Your task to perform on an android device: Clear all items from cart on target.com. Add "bose soundsport free" to the cart on target.com, then select checkout. Image 0: 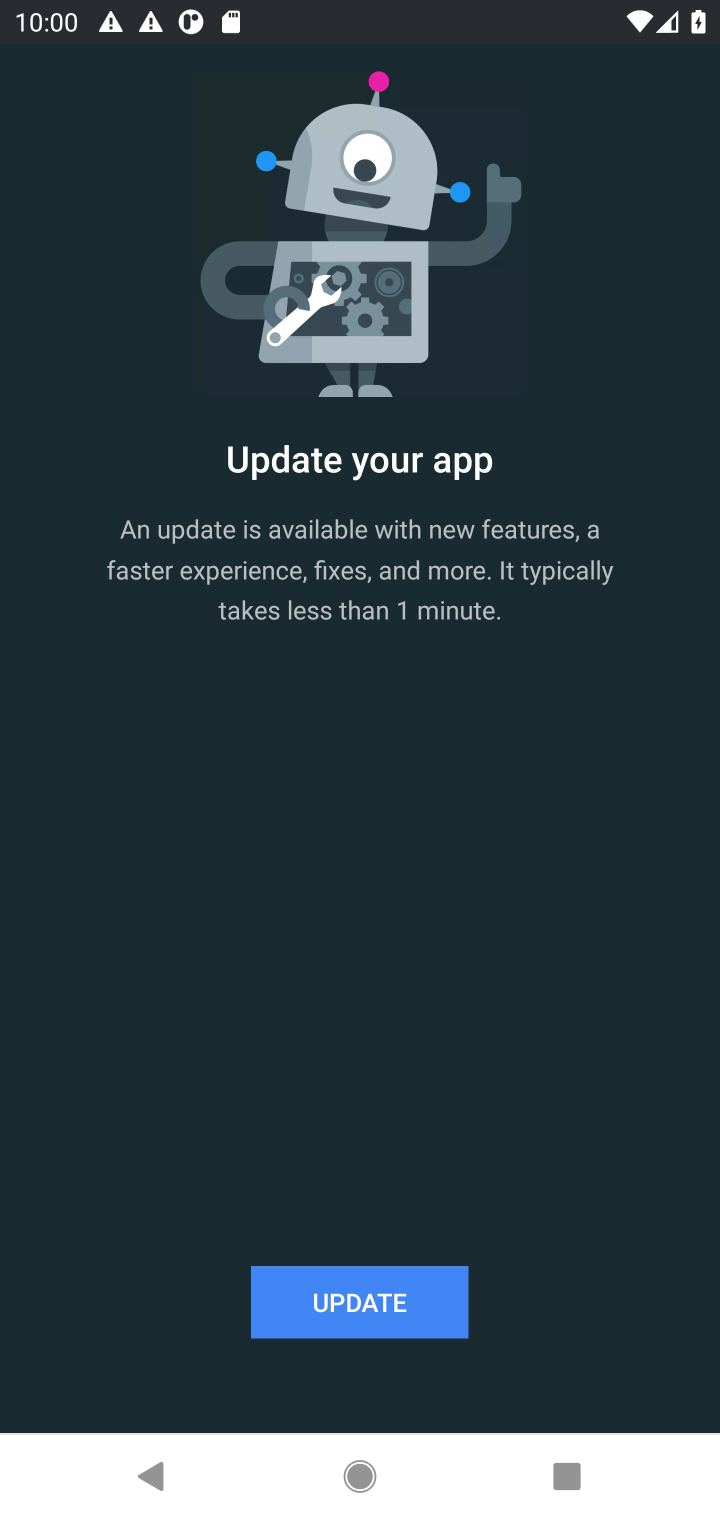
Step 0: press home button
Your task to perform on an android device: Clear all items from cart on target.com. Add "bose soundsport free" to the cart on target.com, then select checkout. Image 1: 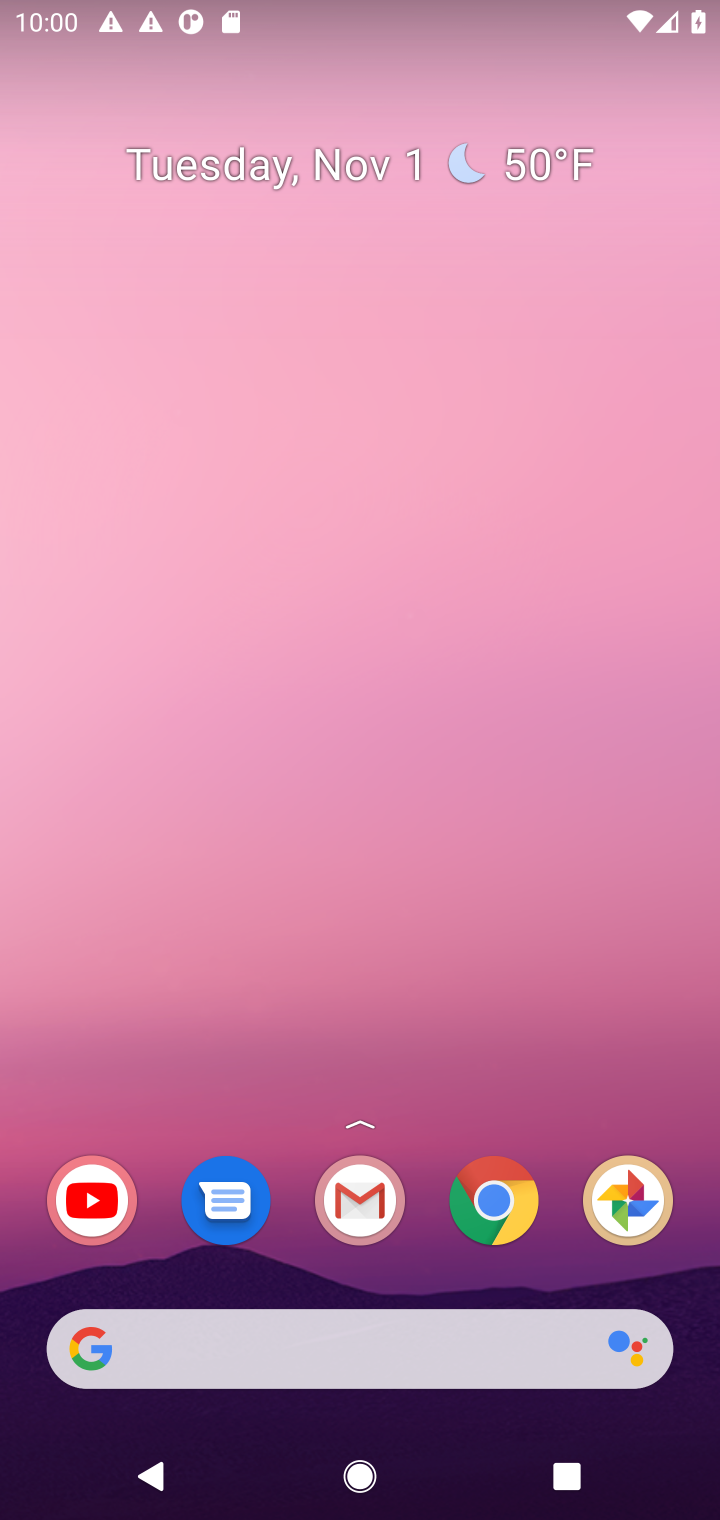
Step 1: click (202, 1345)
Your task to perform on an android device: Clear all items from cart on target.com. Add "bose soundsport free" to the cart on target.com, then select checkout. Image 2: 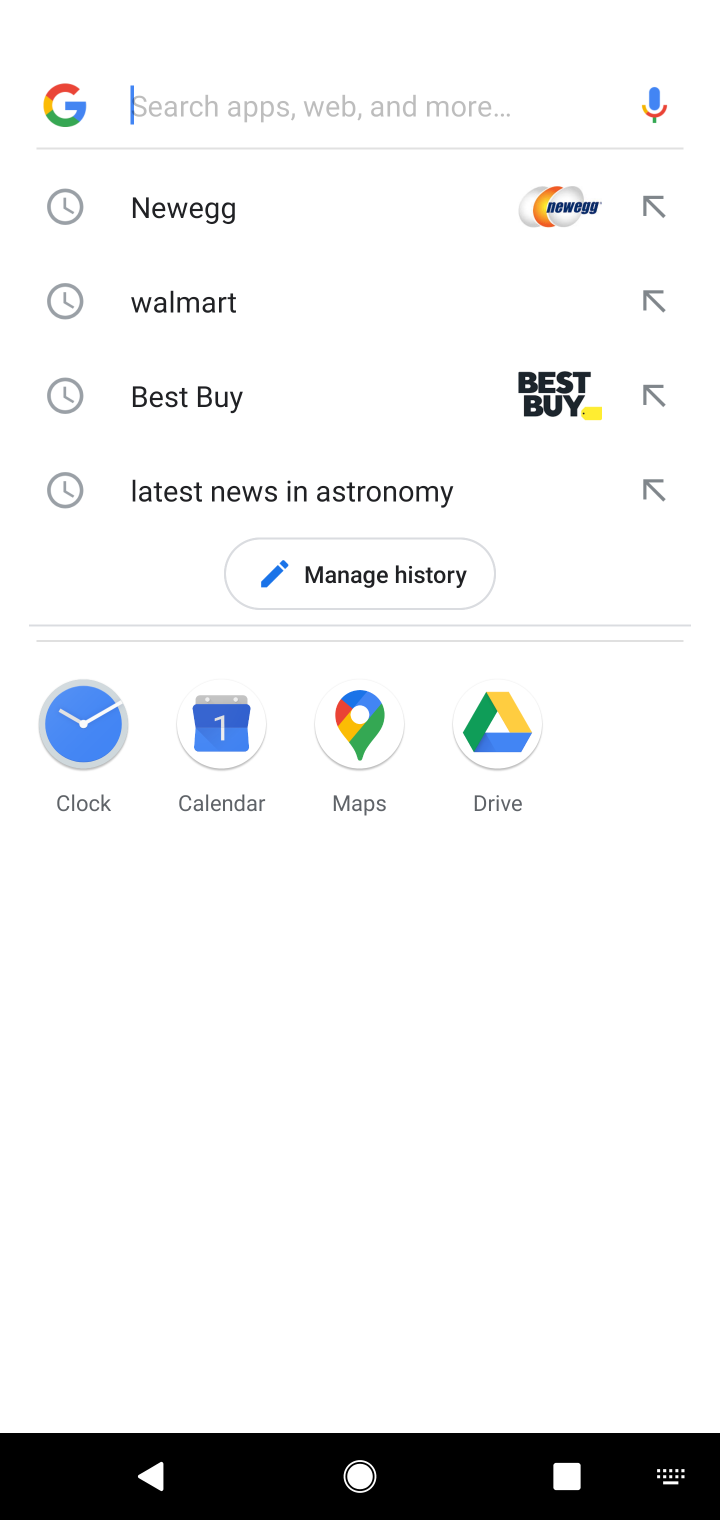
Step 2: type "target.com"
Your task to perform on an android device: Clear all items from cart on target.com. Add "bose soundsport free" to the cart on target.com, then select checkout. Image 3: 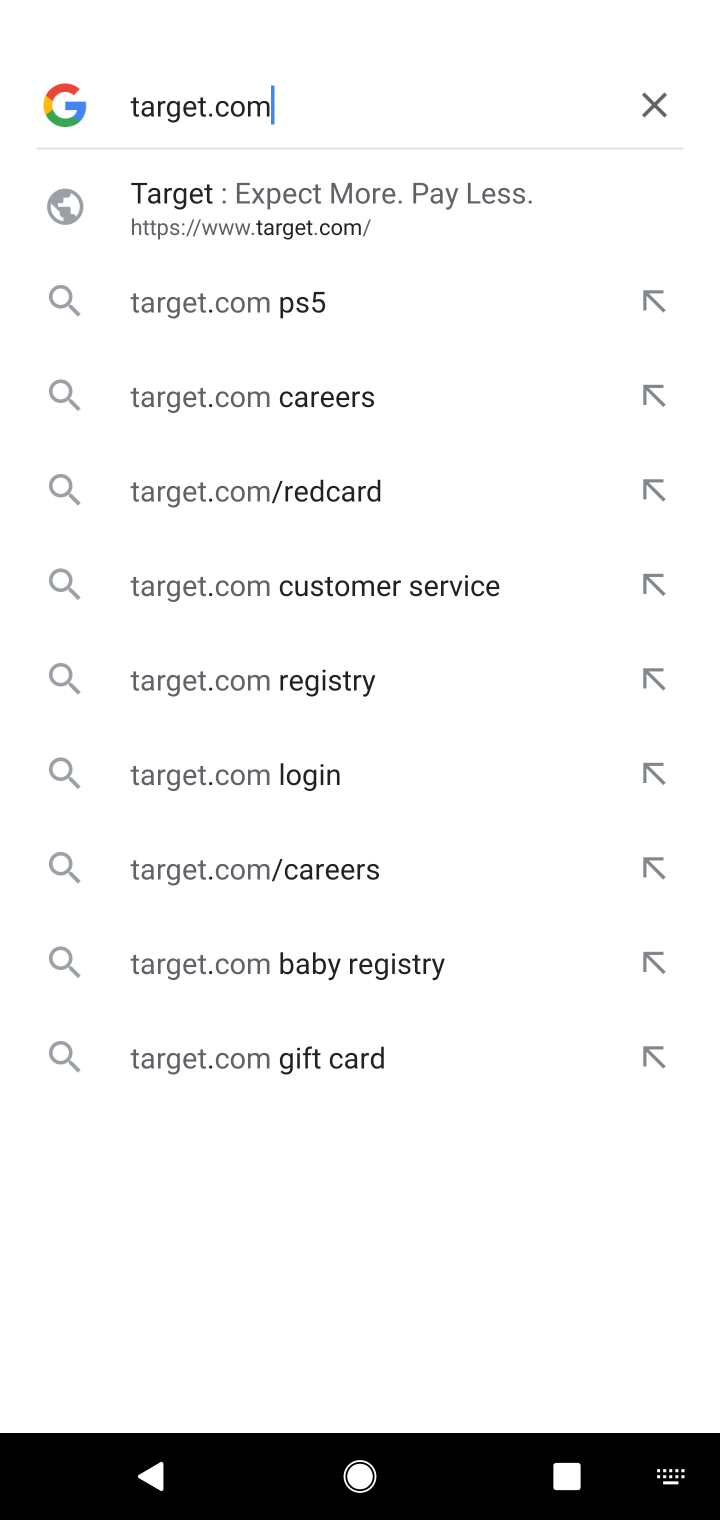
Step 3: click (429, 214)
Your task to perform on an android device: Clear all items from cart on target.com. Add "bose soundsport free" to the cart on target.com, then select checkout. Image 4: 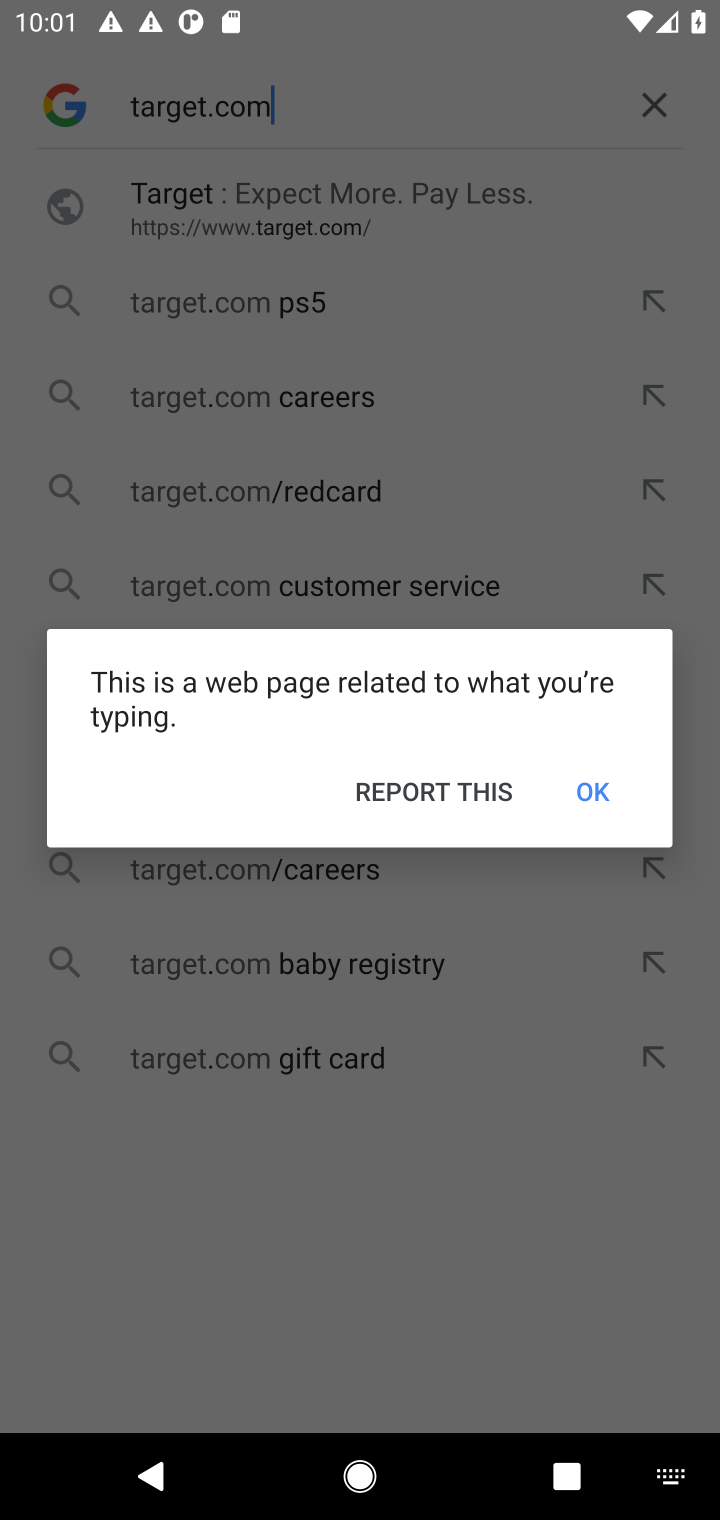
Step 4: click (583, 781)
Your task to perform on an android device: Clear all items from cart on target.com. Add "bose soundsport free" to the cart on target.com, then select checkout. Image 5: 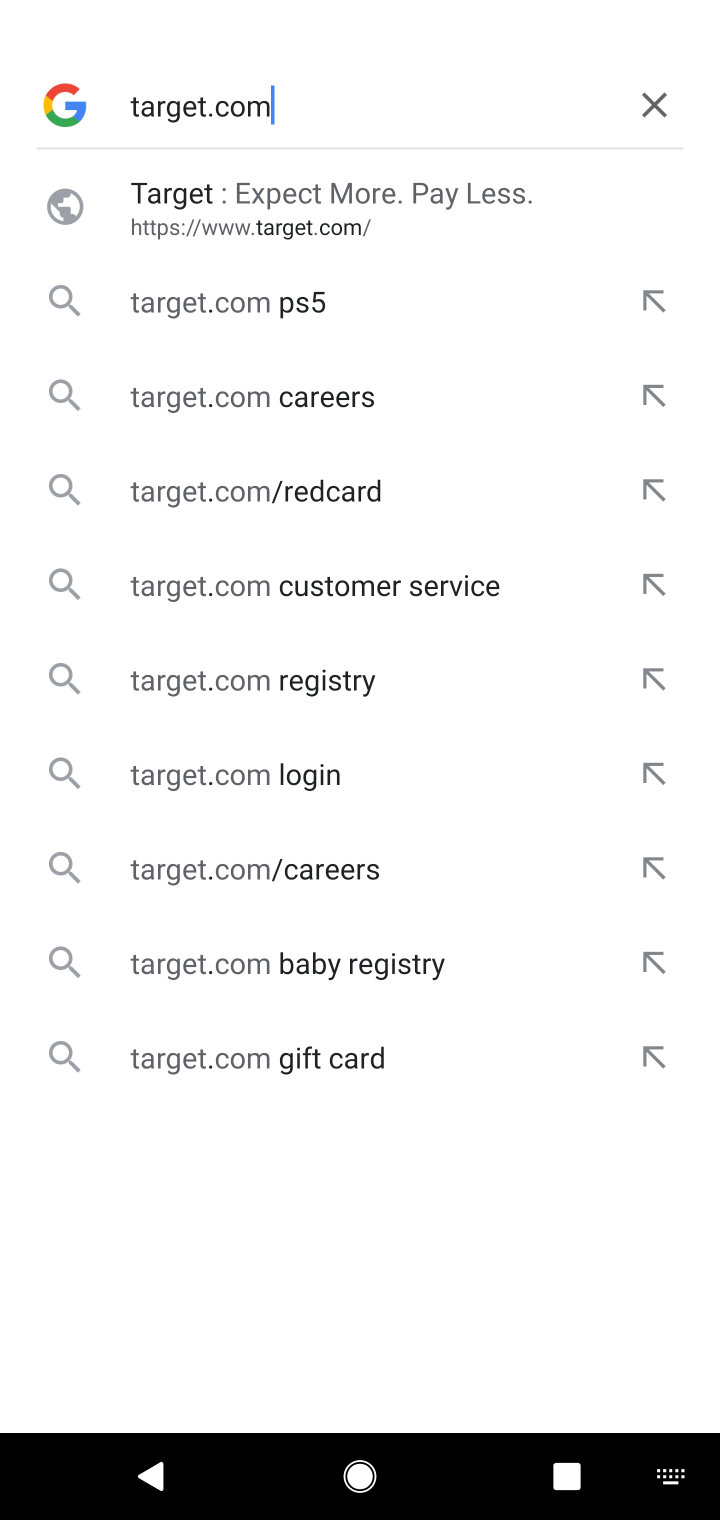
Step 5: click (274, 242)
Your task to perform on an android device: Clear all items from cart on target.com. Add "bose soundsport free" to the cart on target.com, then select checkout. Image 6: 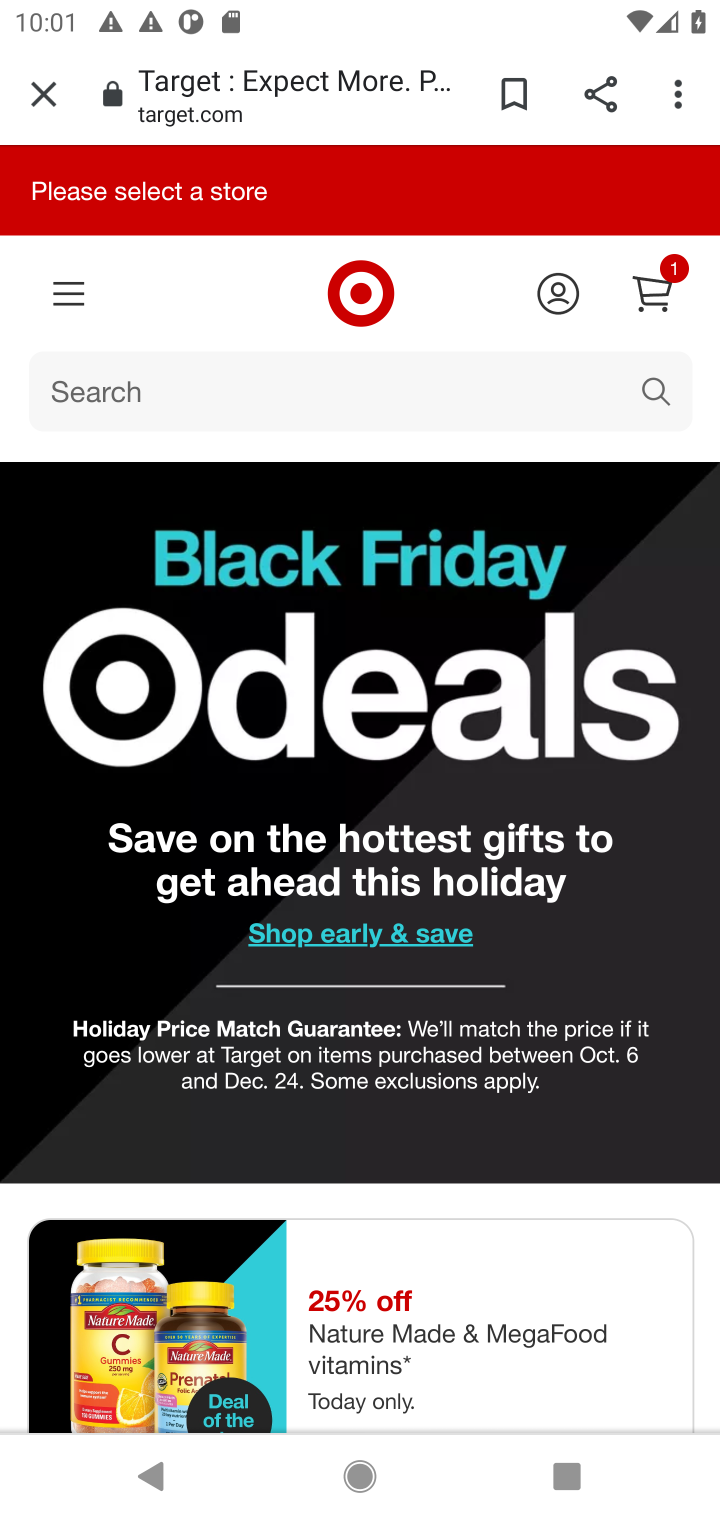
Step 6: click (347, 398)
Your task to perform on an android device: Clear all items from cart on target.com. Add "bose soundsport free" to the cart on target.com, then select checkout. Image 7: 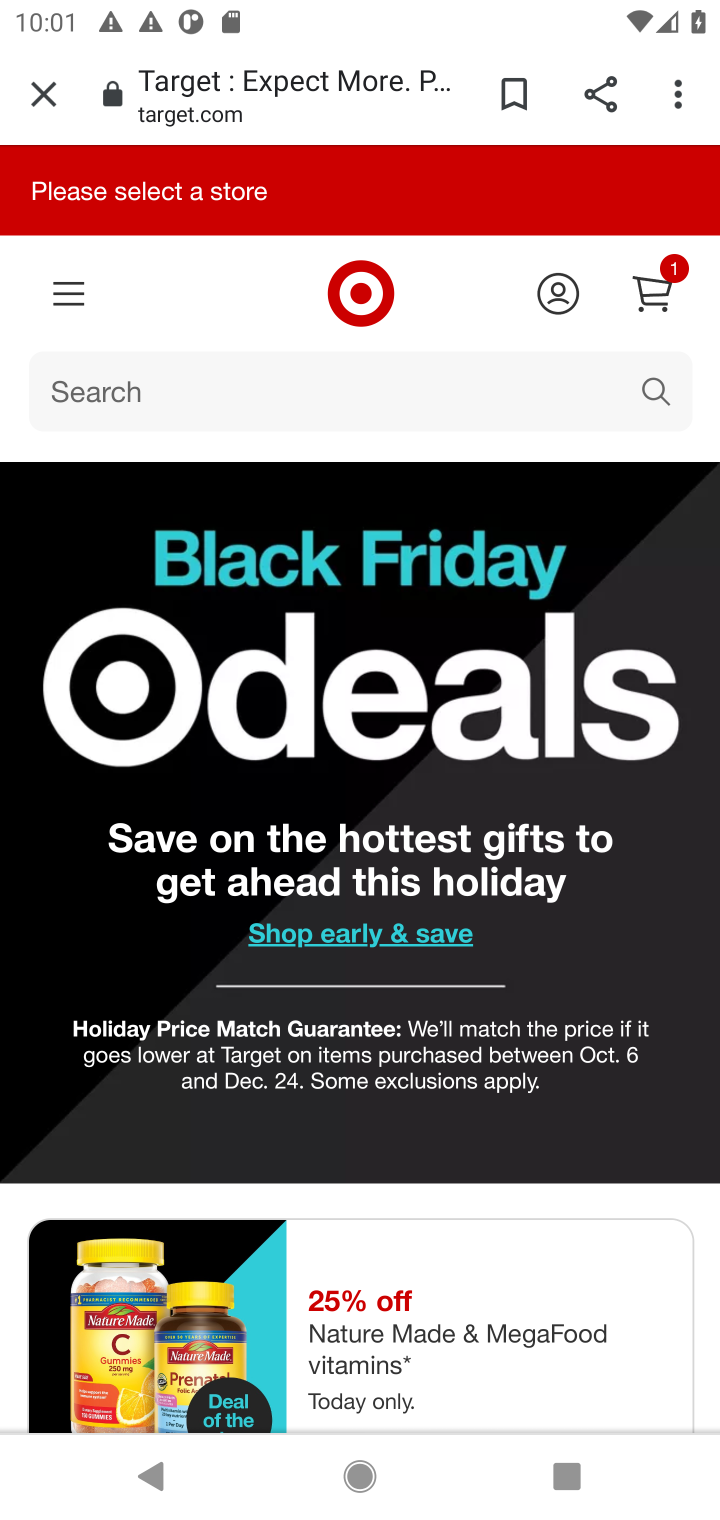
Step 7: click (247, 363)
Your task to perform on an android device: Clear all items from cart on target.com. Add "bose soundsport free" to the cart on target.com, then select checkout. Image 8: 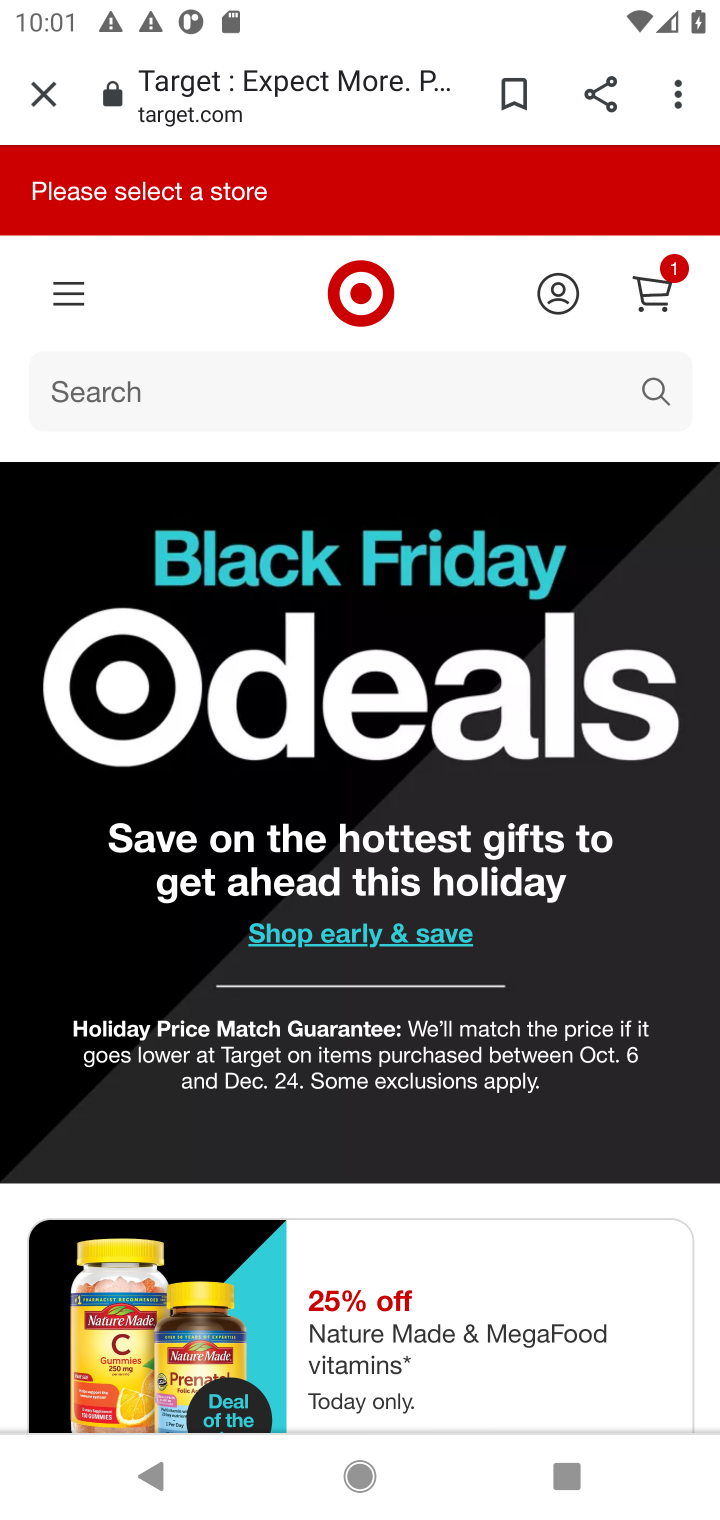
Step 8: click (303, 412)
Your task to perform on an android device: Clear all items from cart on target.com. Add "bose soundsport free" to the cart on target.com, then select checkout. Image 9: 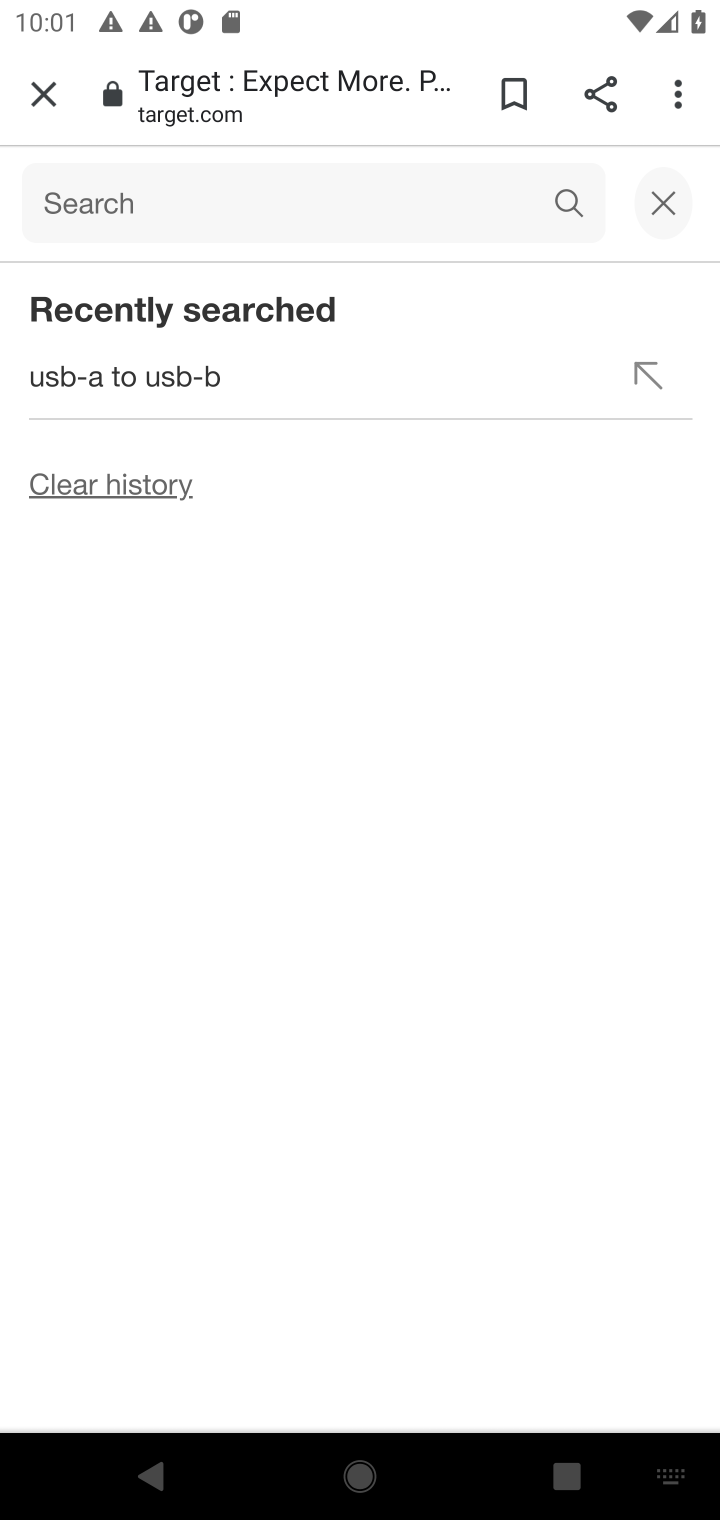
Step 9: type "bose soundsport free"
Your task to perform on an android device: Clear all items from cart on target.com. Add "bose soundsport free" to the cart on target.com, then select checkout. Image 10: 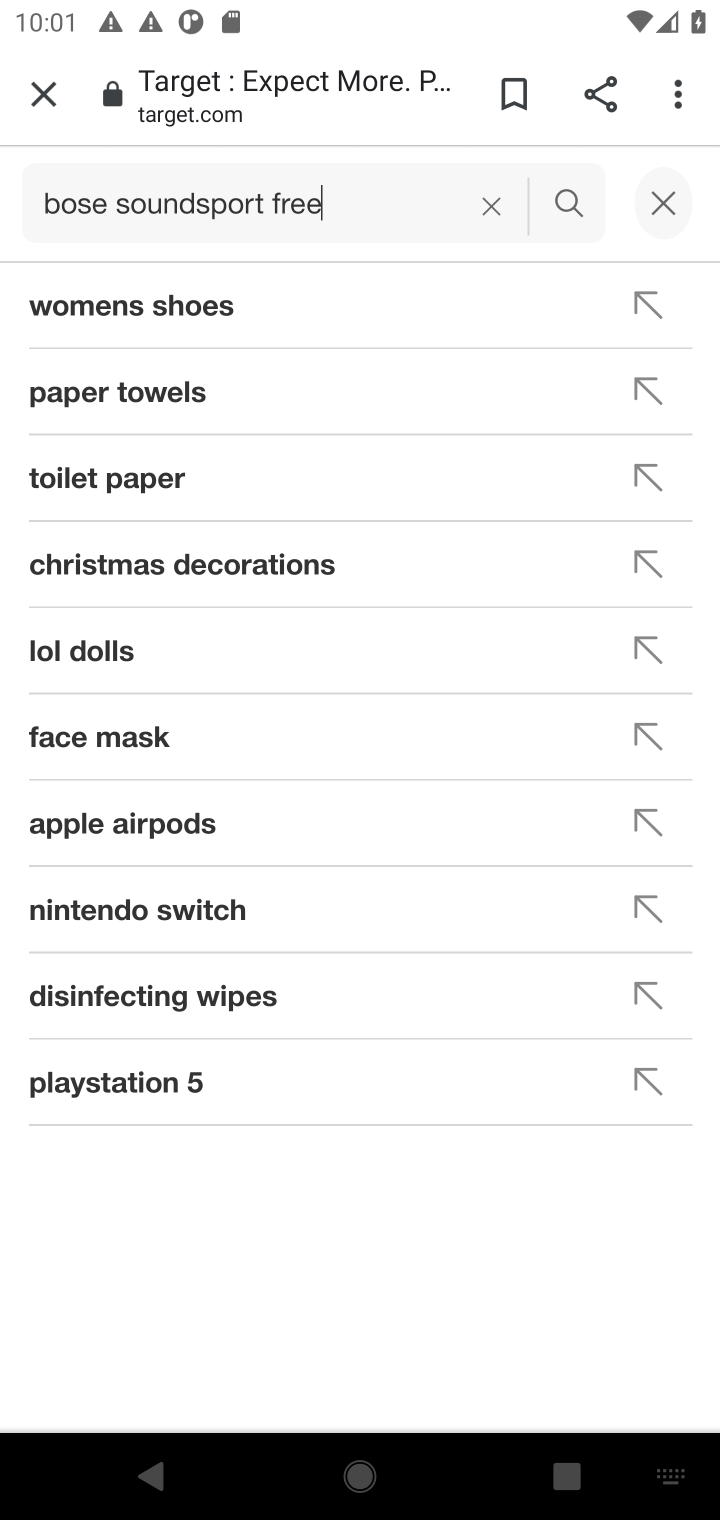
Step 10: type ""
Your task to perform on an android device: Clear all items from cart on target.com. Add "bose soundsport free" to the cart on target.com, then select checkout. Image 11: 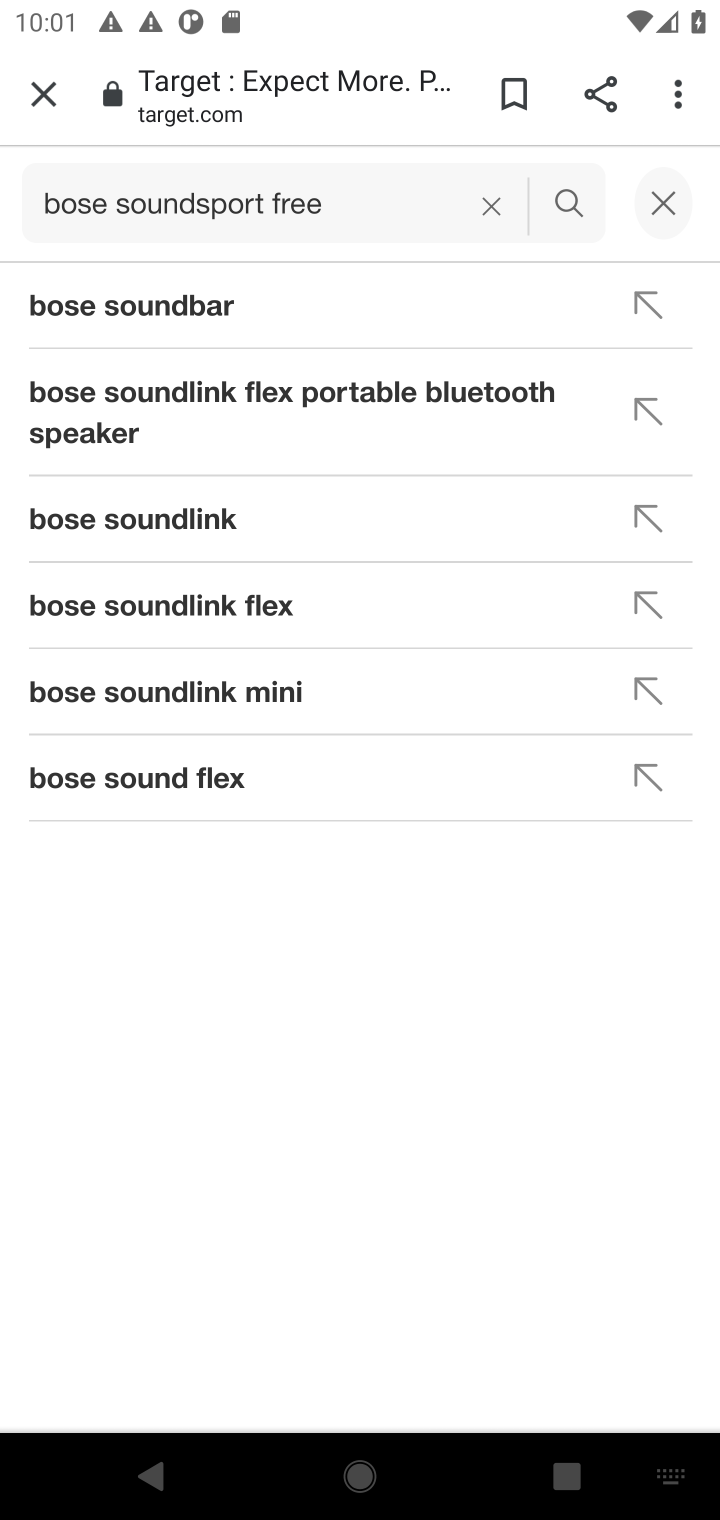
Step 11: click (203, 300)
Your task to perform on an android device: Clear all items from cart on target.com. Add "bose soundsport free" to the cart on target.com, then select checkout. Image 12: 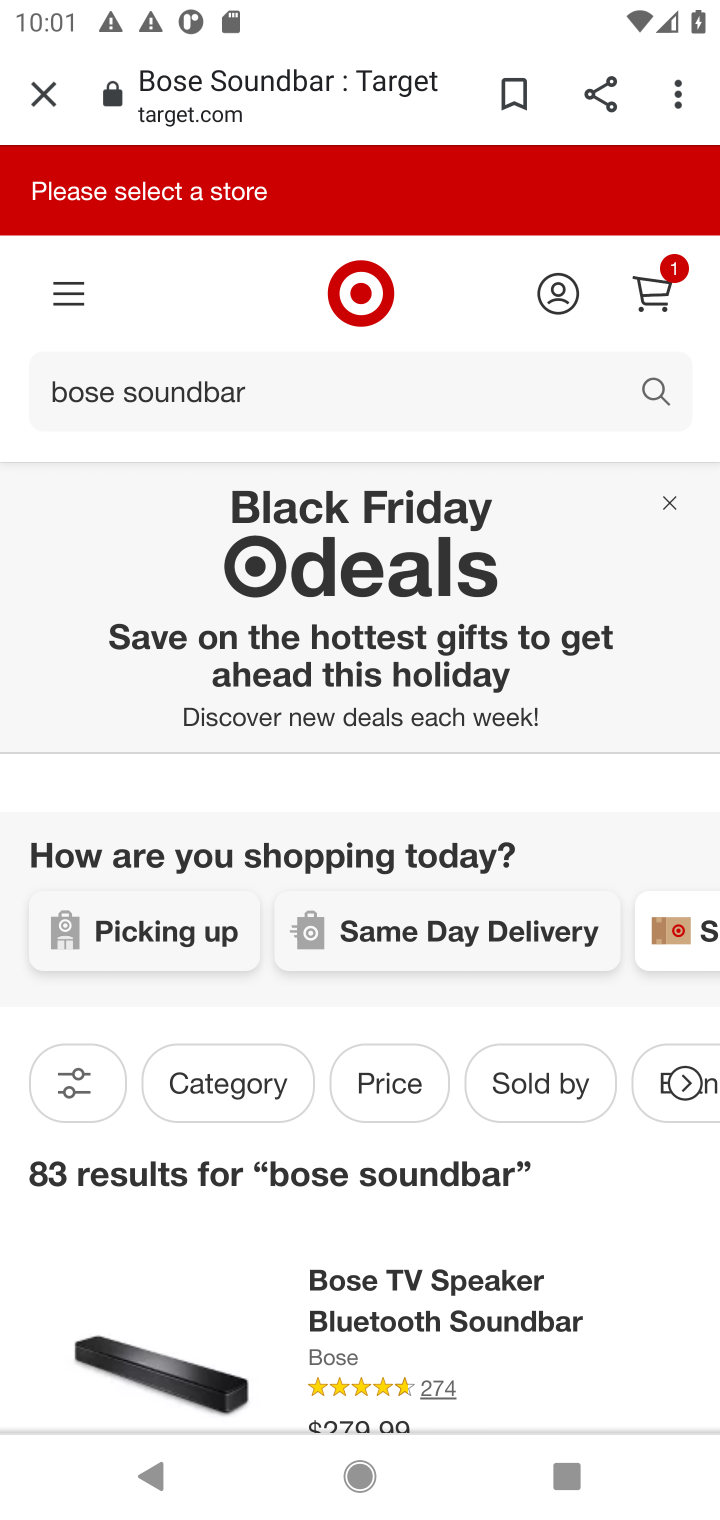
Step 12: drag from (630, 1164) to (601, 684)
Your task to perform on an android device: Clear all items from cart on target.com. Add "bose soundsport free" to the cart on target.com, then select checkout. Image 13: 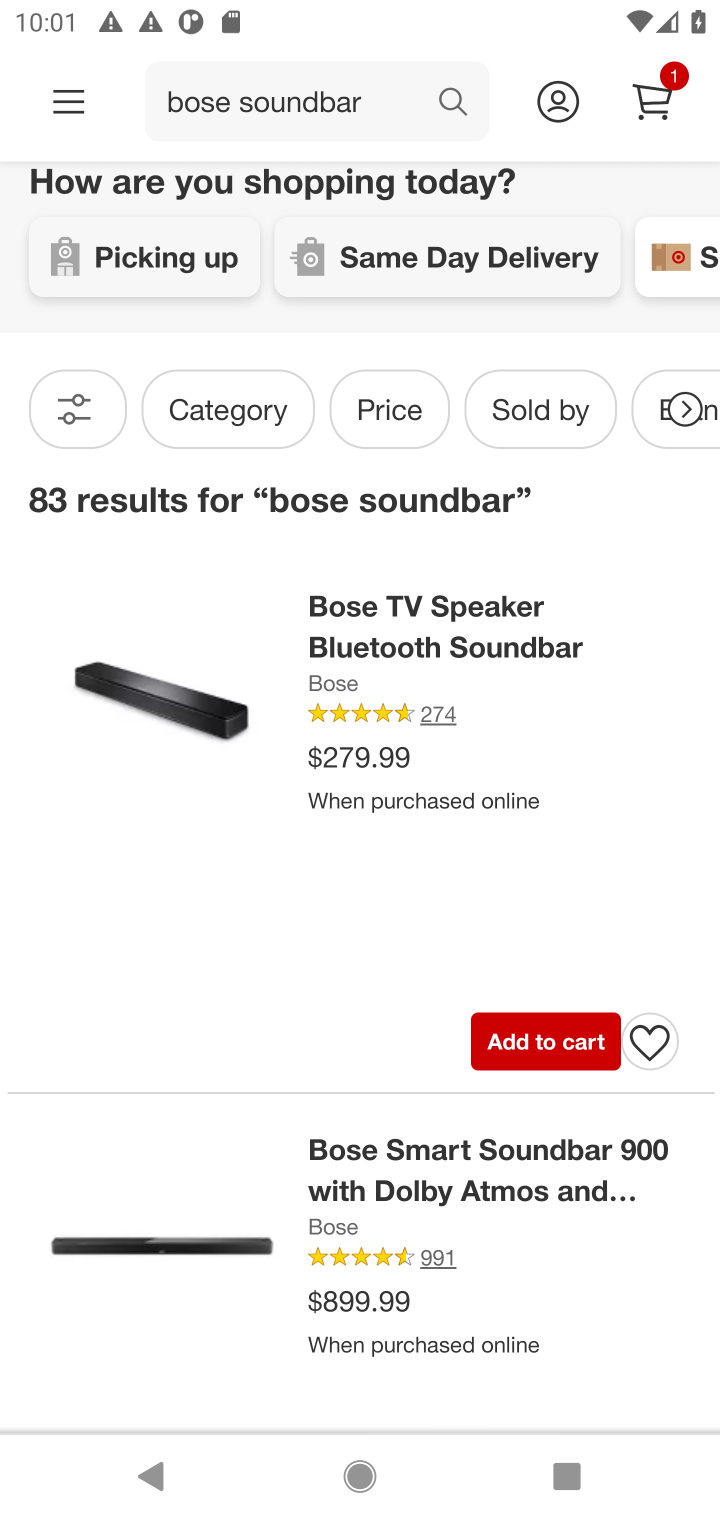
Step 13: click (476, 665)
Your task to perform on an android device: Clear all items from cart on target.com. Add "bose soundsport free" to the cart on target.com, then select checkout. Image 14: 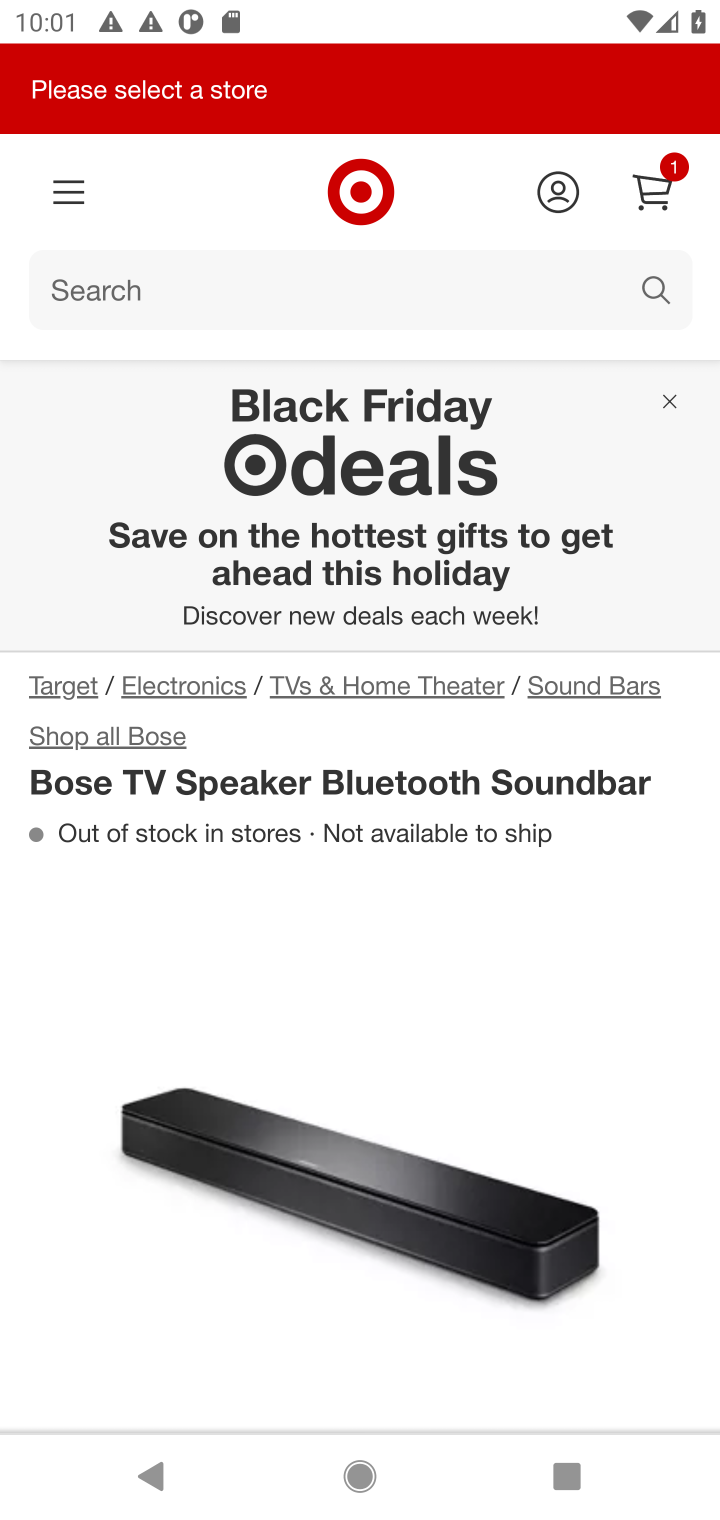
Step 14: drag from (499, 747) to (508, 591)
Your task to perform on an android device: Clear all items from cart on target.com. Add "bose soundsport free" to the cart on target.com, then select checkout. Image 15: 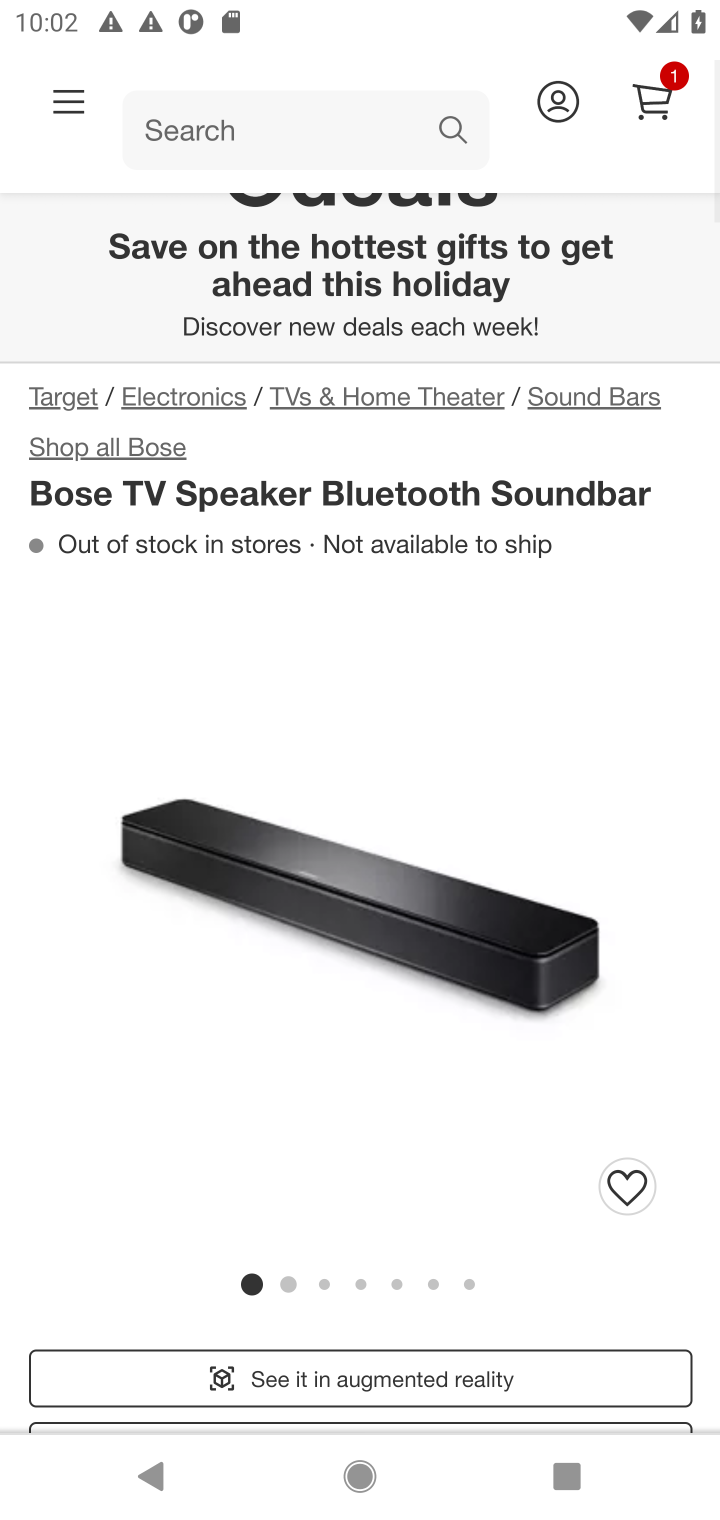
Step 15: drag from (446, 1039) to (449, 598)
Your task to perform on an android device: Clear all items from cart on target.com. Add "bose soundsport free" to the cart on target.com, then select checkout. Image 16: 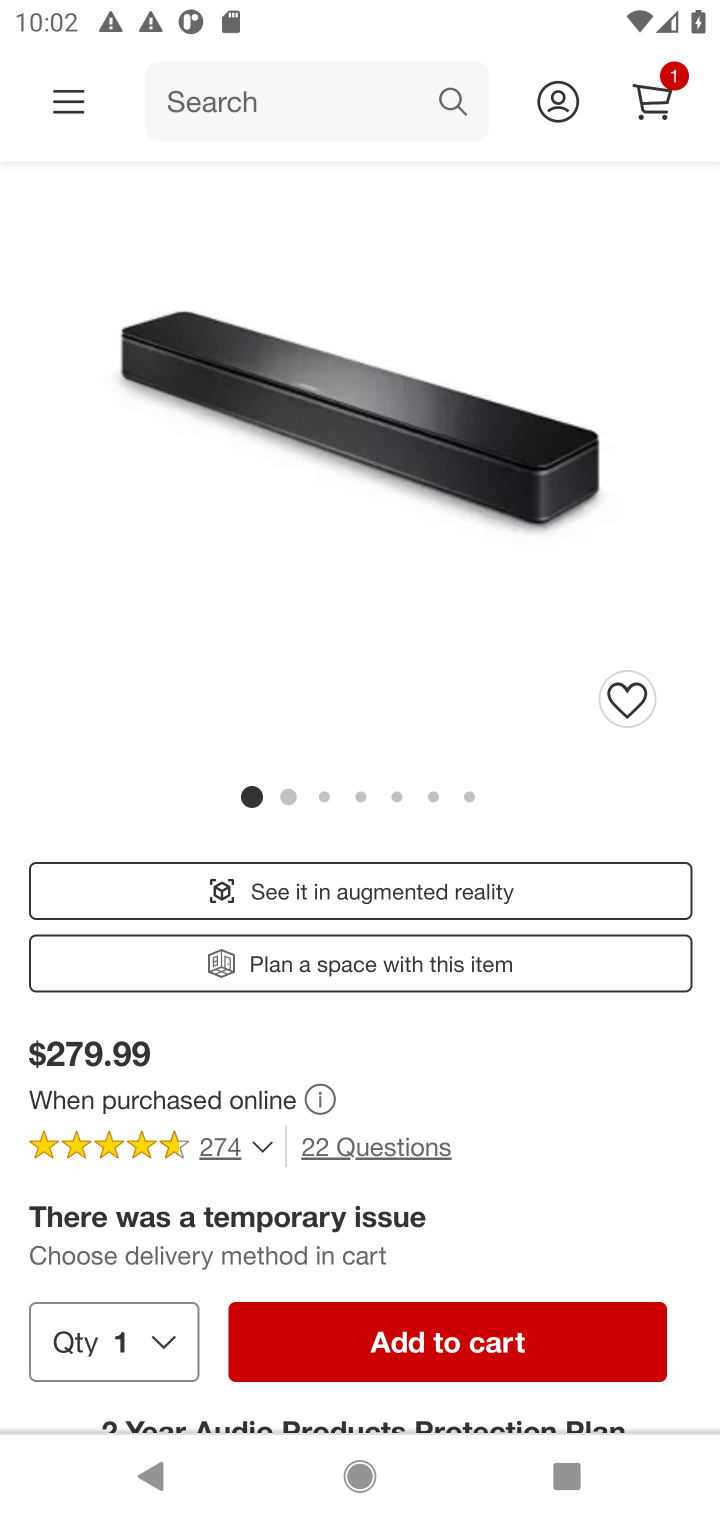
Step 16: click (371, 1362)
Your task to perform on an android device: Clear all items from cart on target.com. Add "bose soundsport free" to the cart on target.com, then select checkout. Image 17: 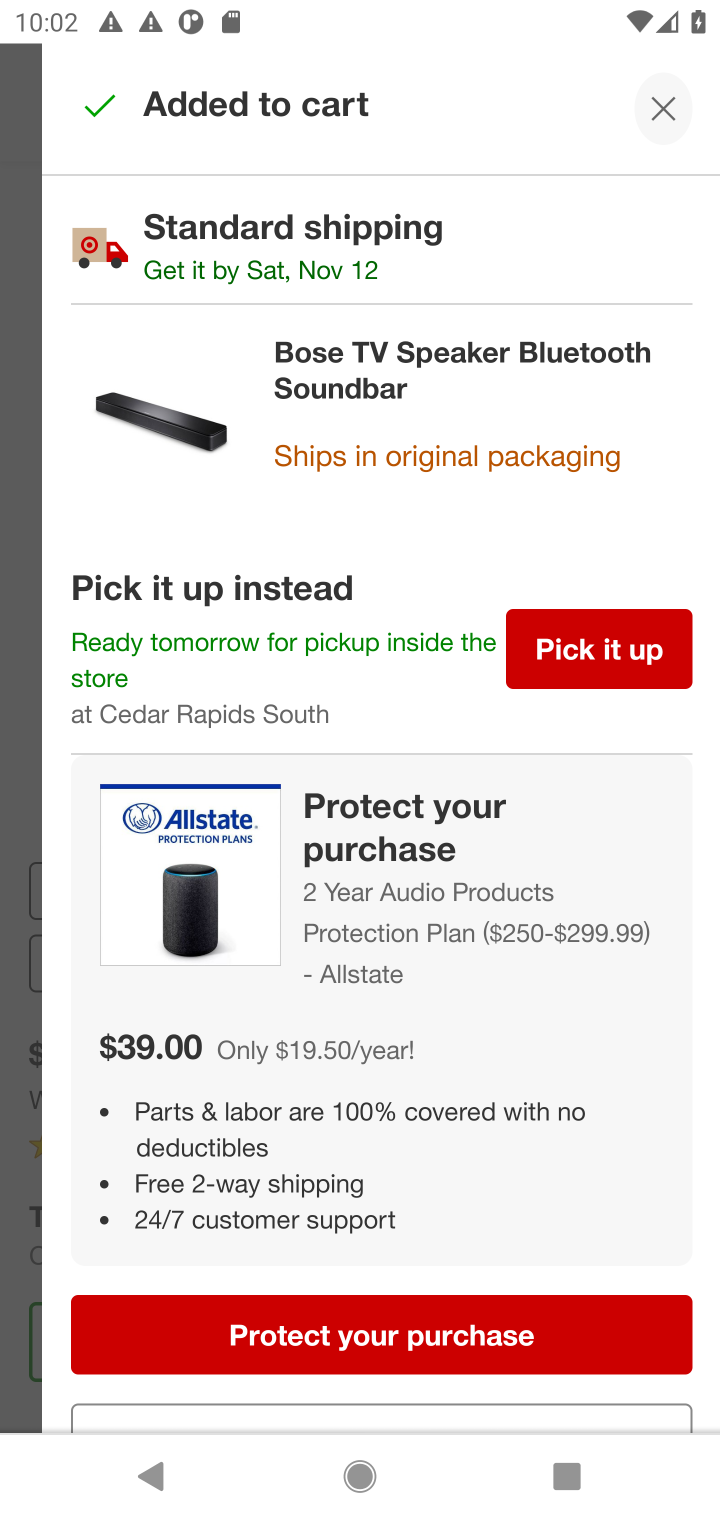
Step 17: drag from (552, 1279) to (572, 625)
Your task to perform on an android device: Clear all items from cart on target.com. Add "bose soundsport free" to the cart on target.com, then select checkout. Image 18: 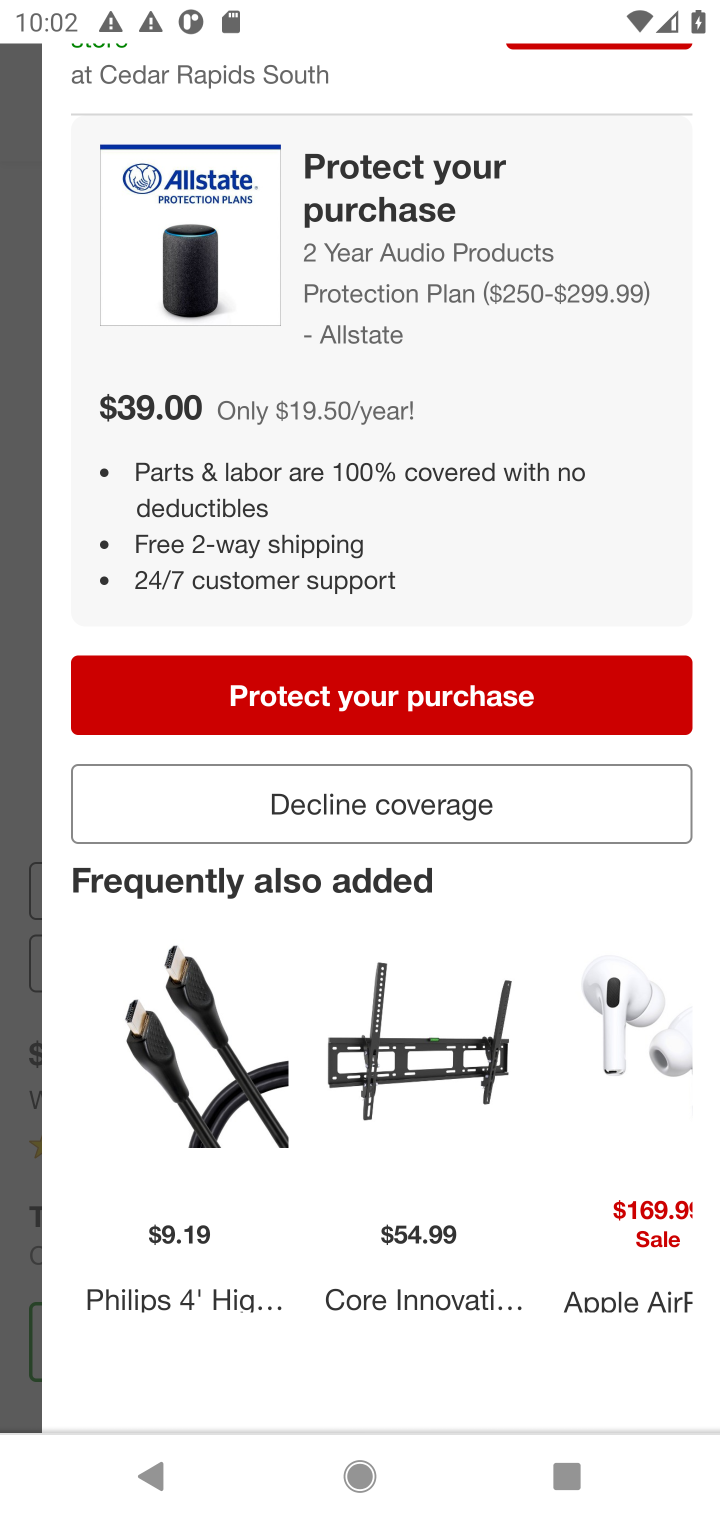
Step 18: click (350, 811)
Your task to perform on an android device: Clear all items from cart on target.com. Add "bose soundsport free" to the cart on target.com, then select checkout. Image 19: 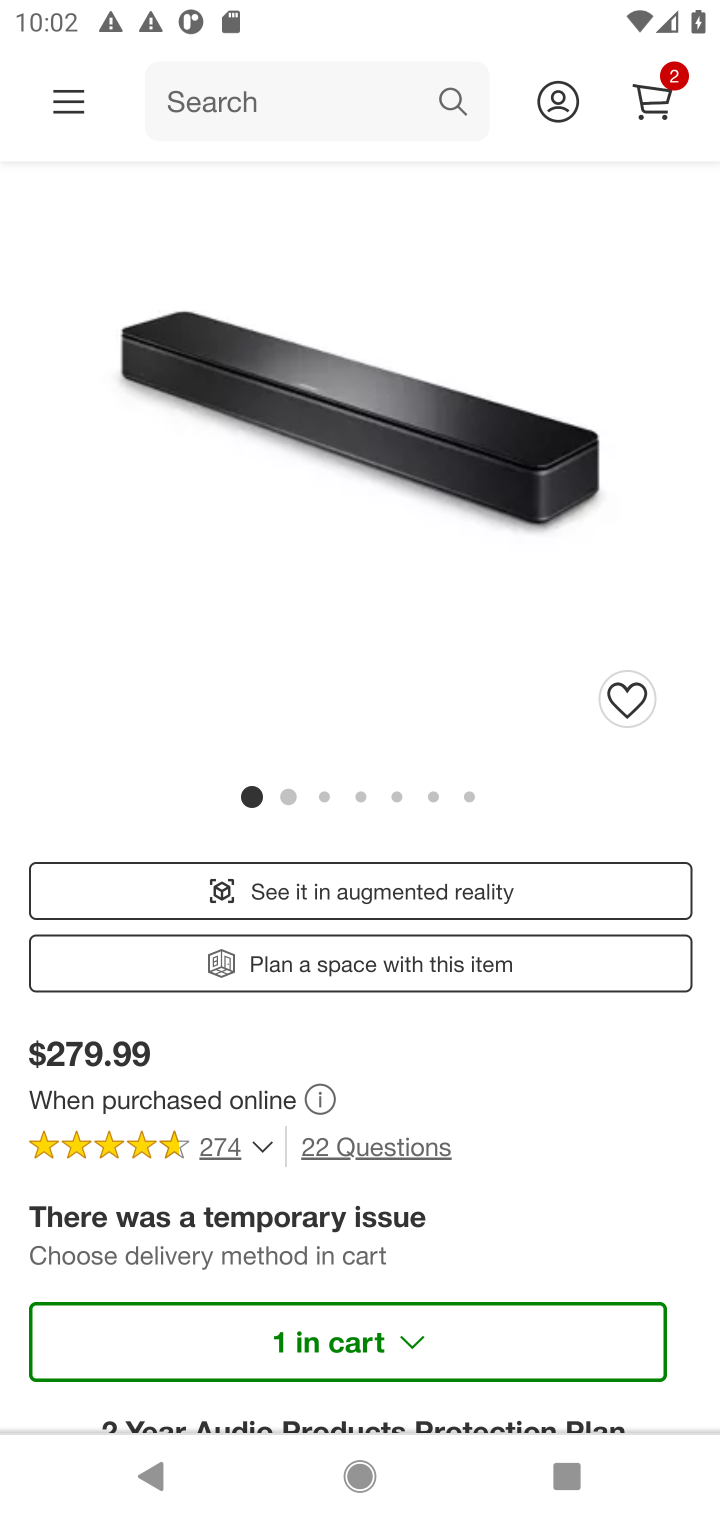
Step 19: drag from (505, 1083) to (510, 576)
Your task to perform on an android device: Clear all items from cart on target.com. Add "bose soundsport free" to the cart on target.com, then select checkout. Image 20: 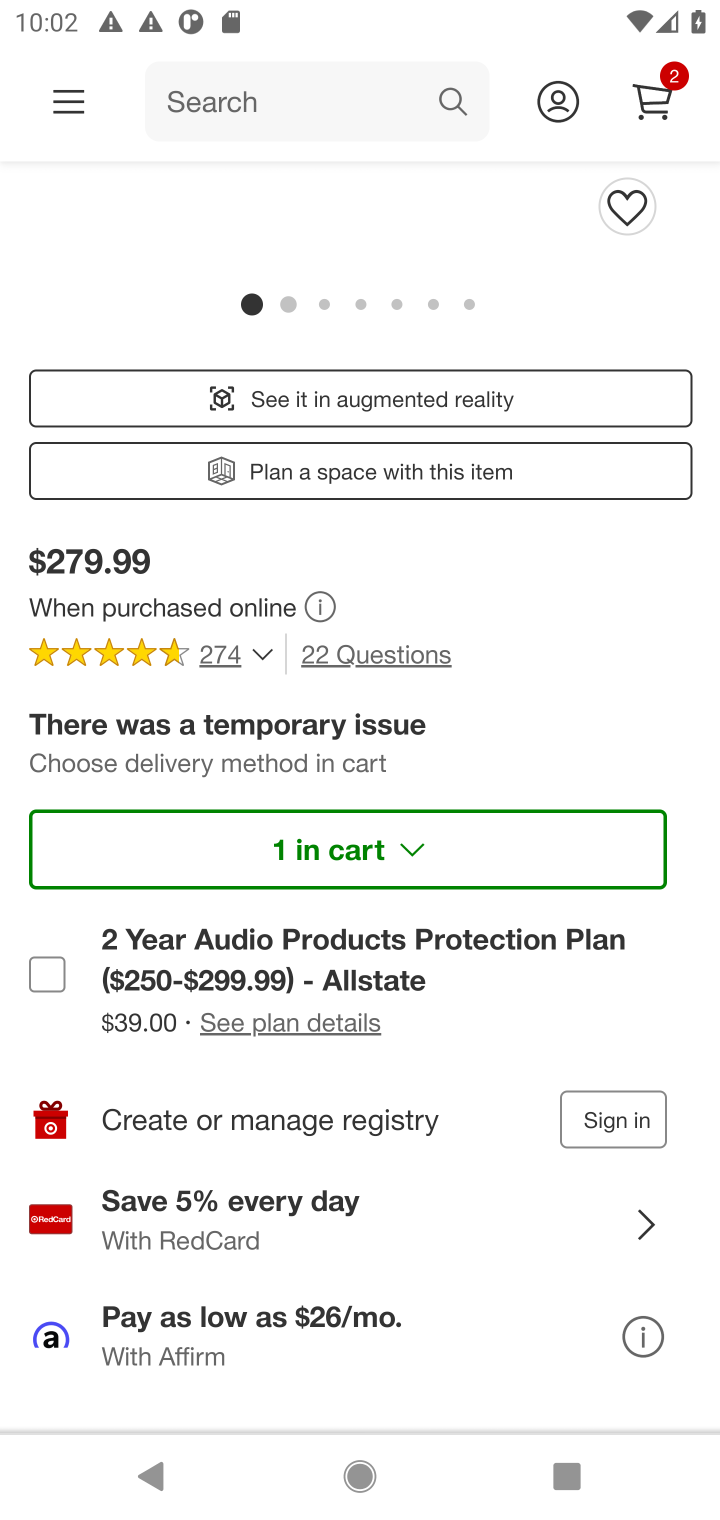
Step 20: drag from (458, 756) to (453, 462)
Your task to perform on an android device: Clear all items from cart on target.com. Add "bose soundsport free" to the cart on target.com, then select checkout. Image 21: 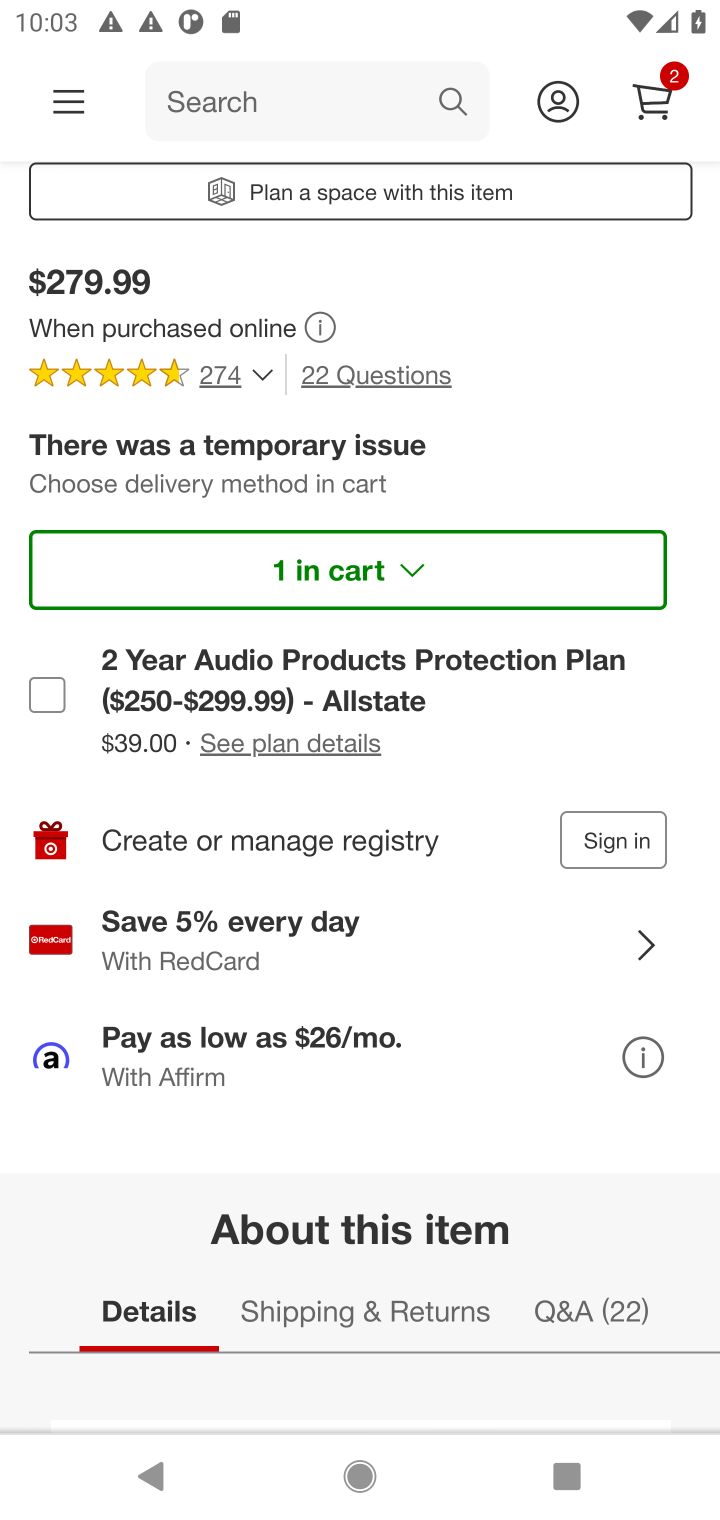
Step 21: drag from (409, 1008) to (550, 456)
Your task to perform on an android device: Clear all items from cart on target.com. Add "bose soundsport free" to the cart on target.com, then select checkout. Image 22: 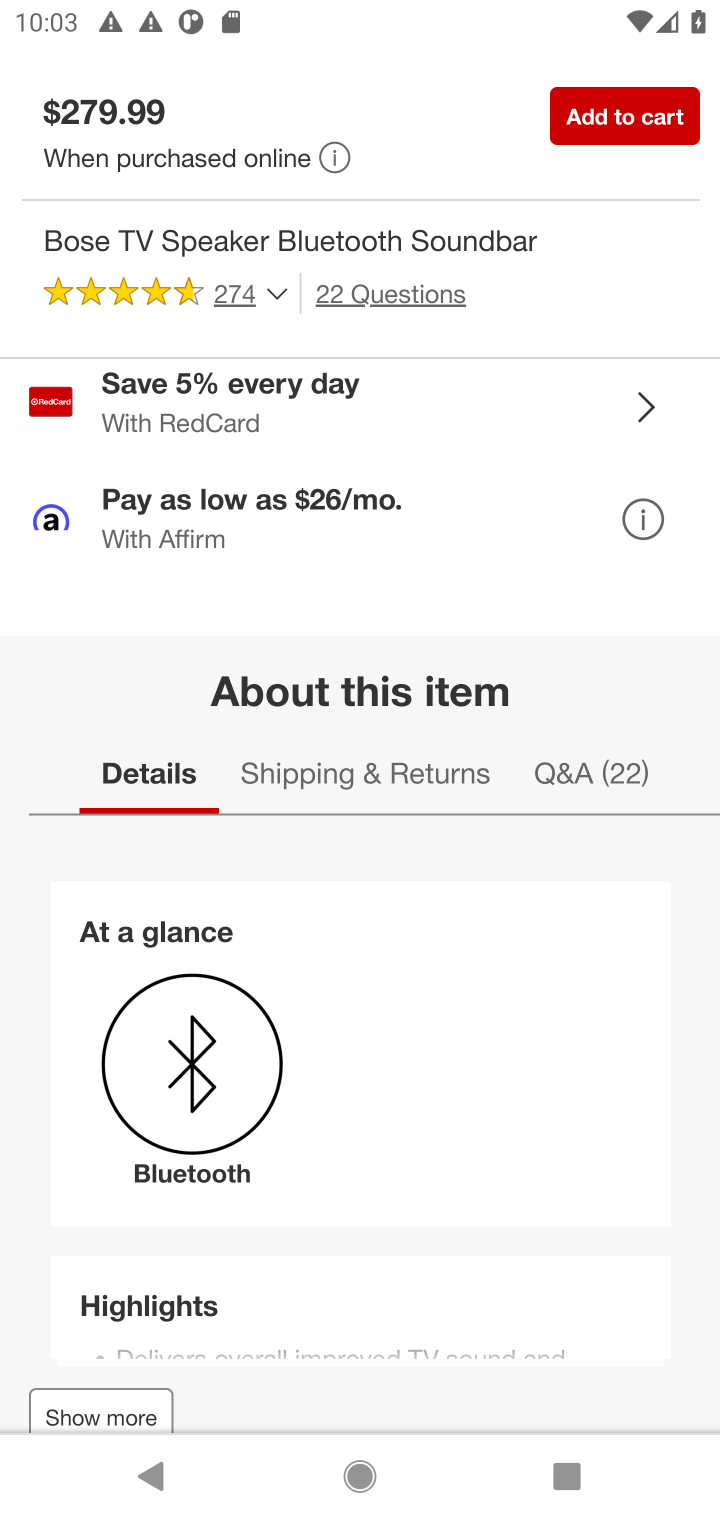
Step 22: click (643, 103)
Your task to perform on an android device: Clear all items from cart on target.com. Add "bose soundsport free" to the cart on target.com, then select checkout. Image 23: 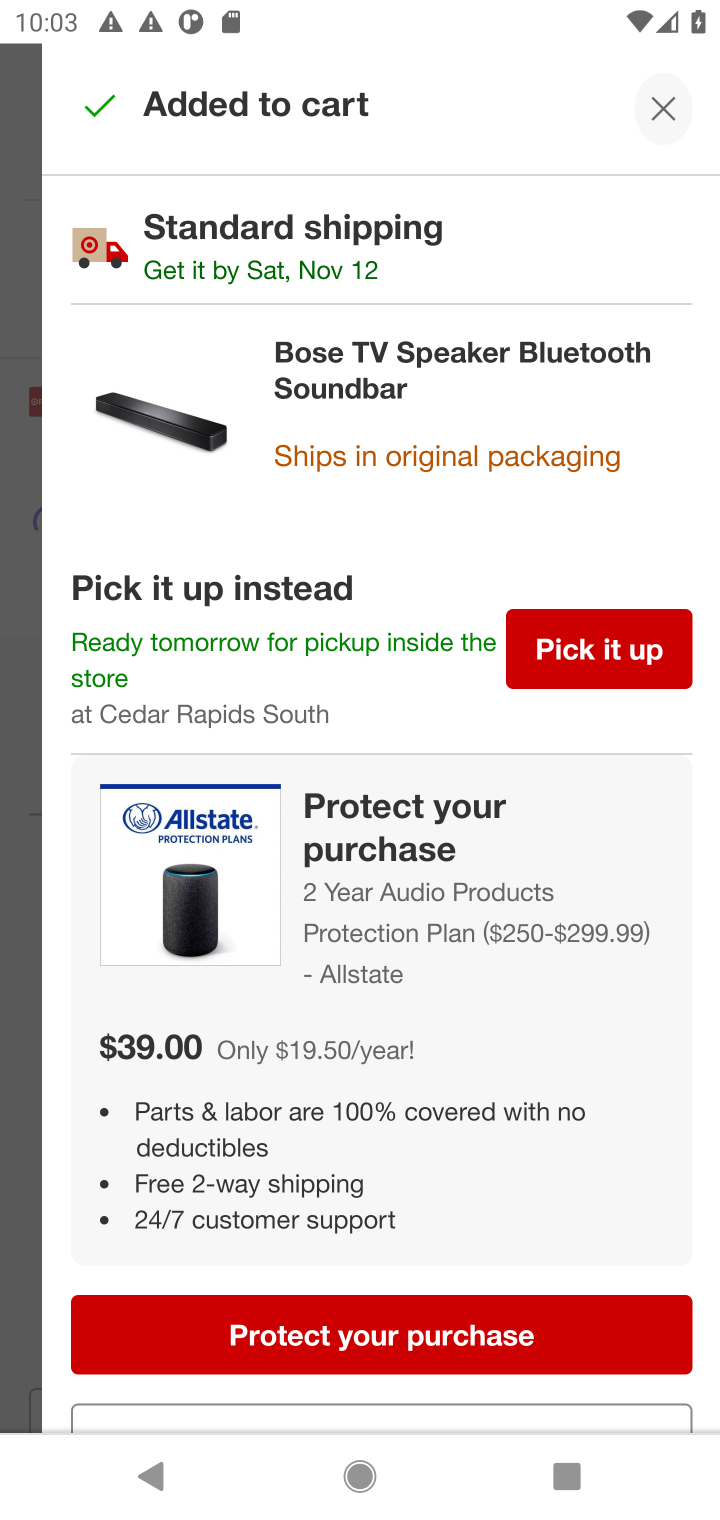
Step 23: task complete